Your task to perform on an android device: read, delete, or share a saved page in the chrome app Image 0: 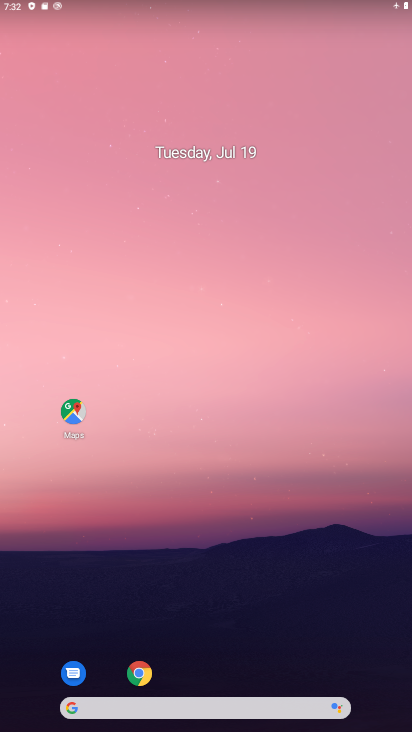
Step 0: drag from (312, 450) to (331, 39)
Your task to perform on an android device: read, delete, or share a saved page in the chrome app Image 1: 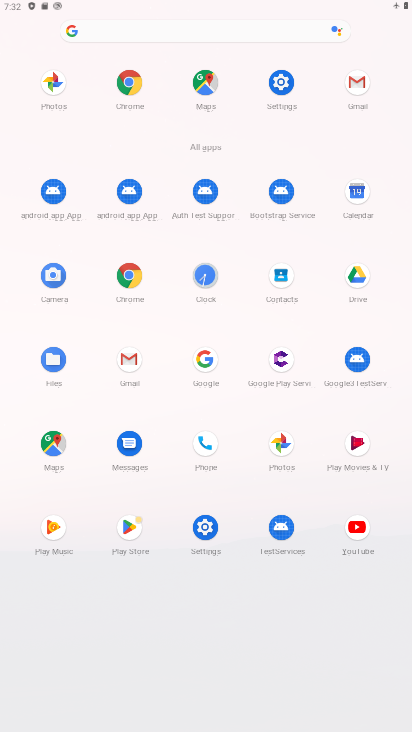
Step 1: click (125, 82)
Your task to perform on an android device: read, delete, or share a saved page in the chrome app Image 2: 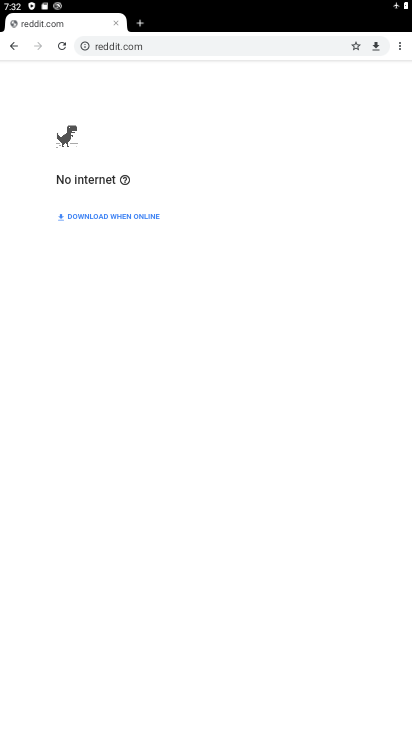
Step 2: task complete